Your task to perform on an android device: Open Amazon Image 0: 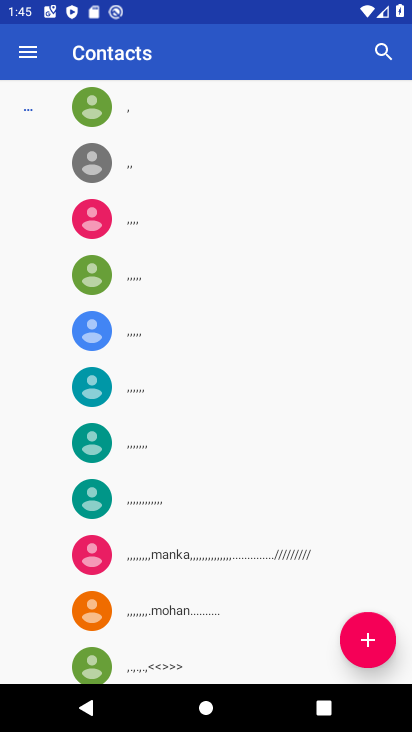
Step 0: press home button
Your task to perform on an android device: Open Amazon Image 1: 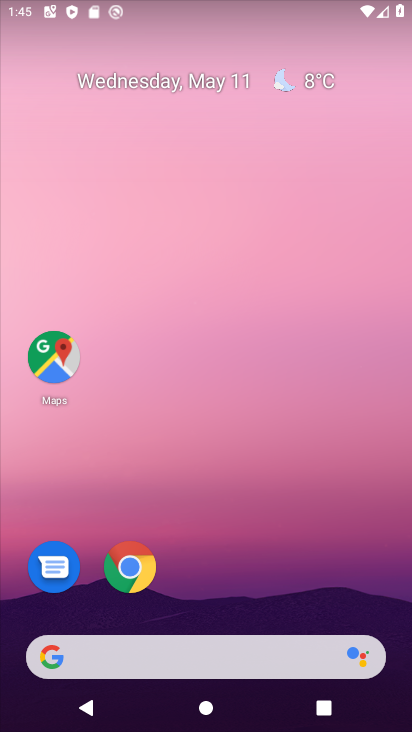
Step 1: click (128, 573)
Your task to perform on an android device: Open Amazon Image 2: 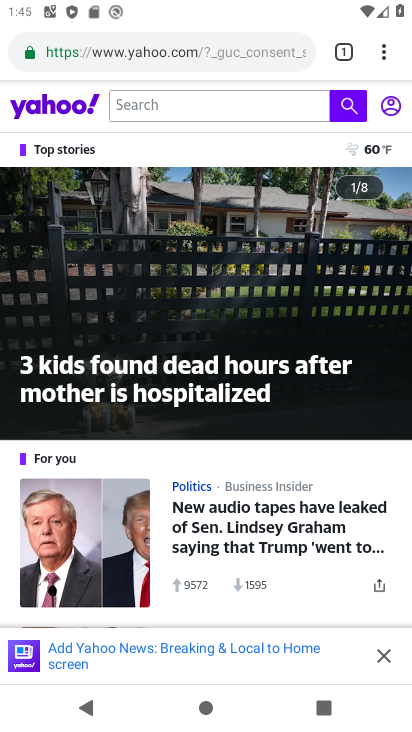
Step 2: click (338, 60)
Your task to perform on an android device: Open Amazon Image 3: 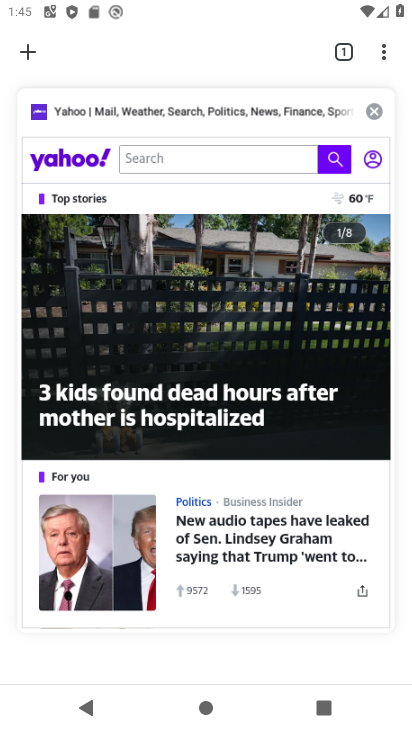
Step 3: click (378, 114)
Your task to perform on an android device: Open Amazon Image 4: 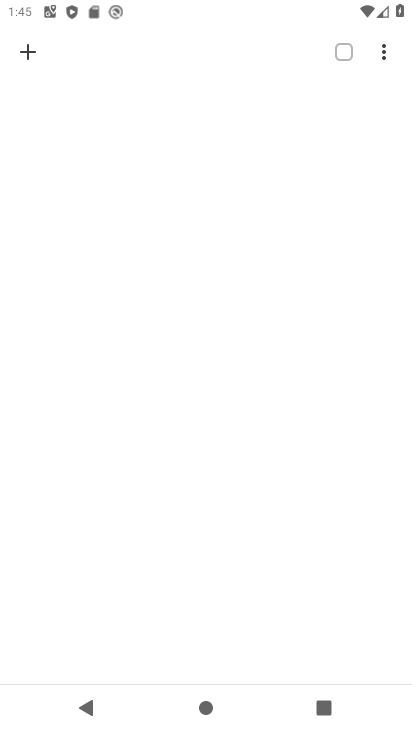
Step 4: click (29, 50)
Your task to perform on an android device: Open Amazon Image 5: 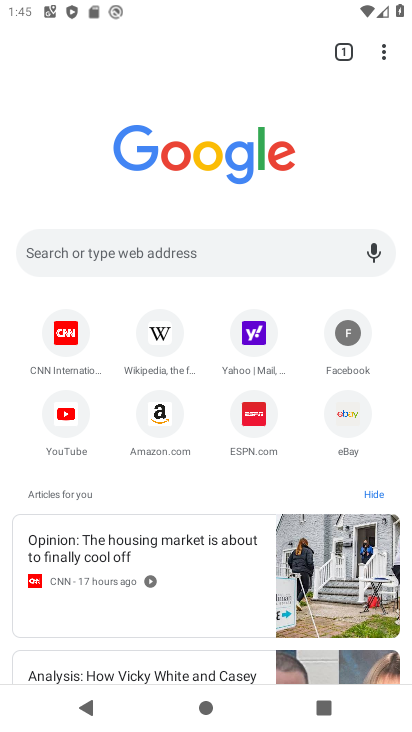
Step 5: click (168, 411)
Your task to perform on an android device: Open Amazon Image 6: 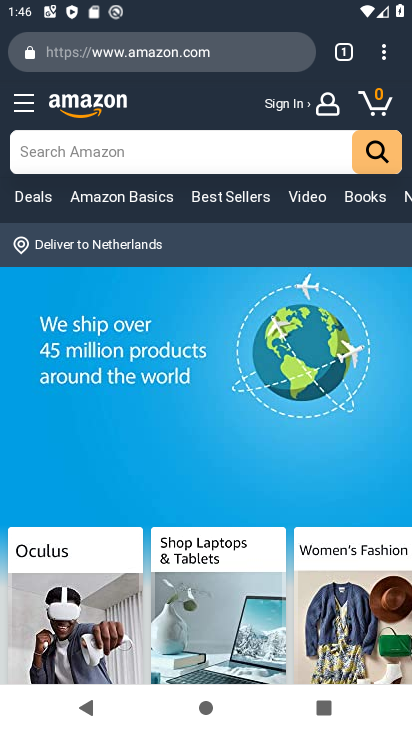
Step 6: task complete